Your task to perform on an android device: turn on javascript in the chrome app Image 0: 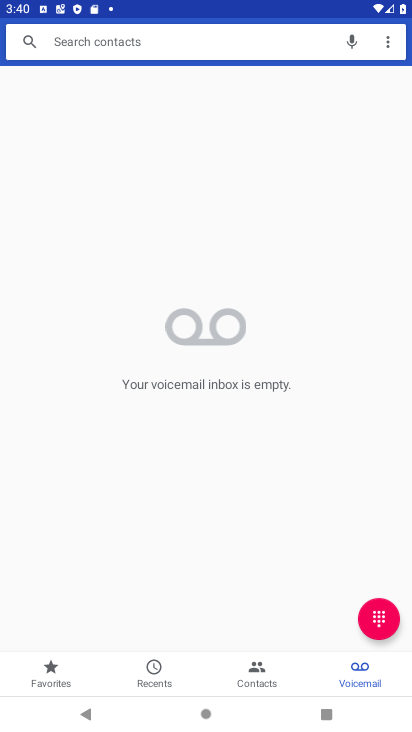
Step 0: press home button
Your task to perform on an android device: turn on javascript in the chrome app Image 1: 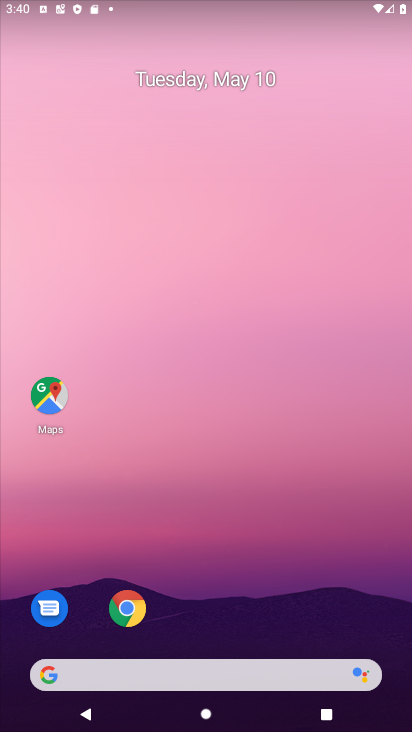
Step 1: click (126, 604)
Your task to perform on an android device: turn on javascript in the chrome app Image 2: 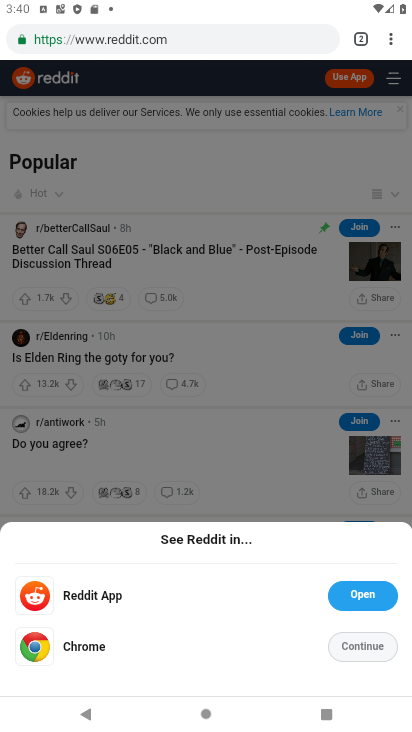
Step 2: click (391, 36)
Your task to perform on an android device: turn on javascript in the chrome app Image 3: 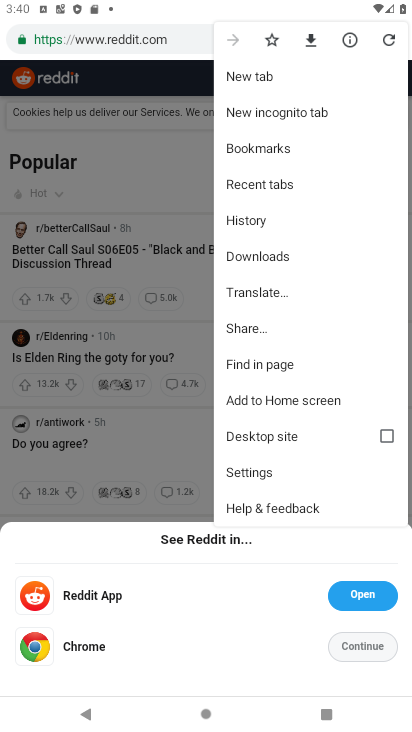
Step 3: click (256, 469)
Your task to perform on an android device: turn on javascript in the chrome app Image 4: 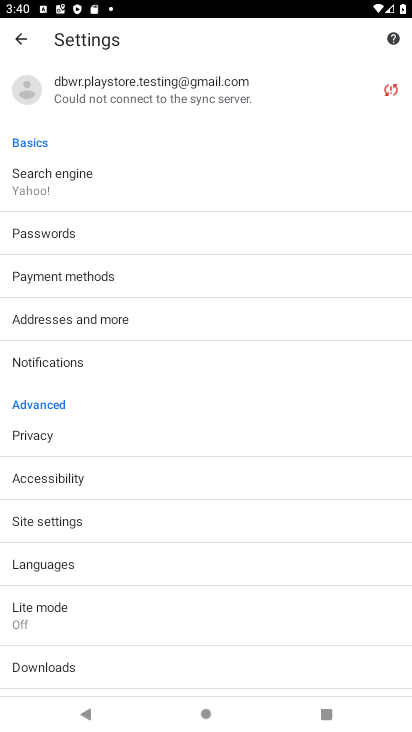
Step 4: click (55, 517)
Your task to perform on an android device: turn on javascript in the chrome app Image 5: 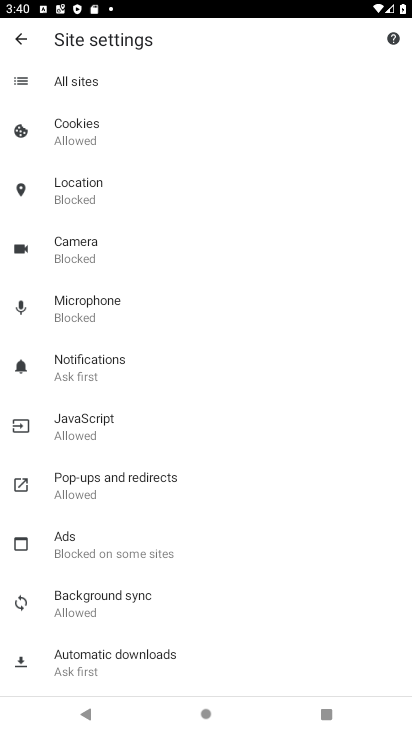
Step 5: click (89, 421)
Your task to perform on an android device: turn on javascript in the chrome app Image 6: 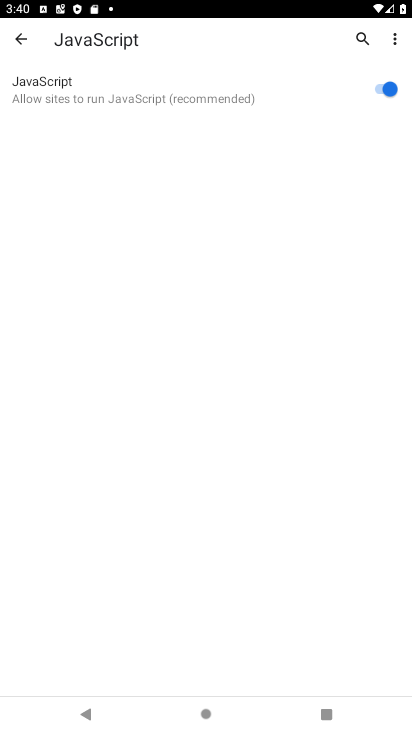
Step 6: task complete